Your task to perform on an android device: Open Google Maps Image 0: 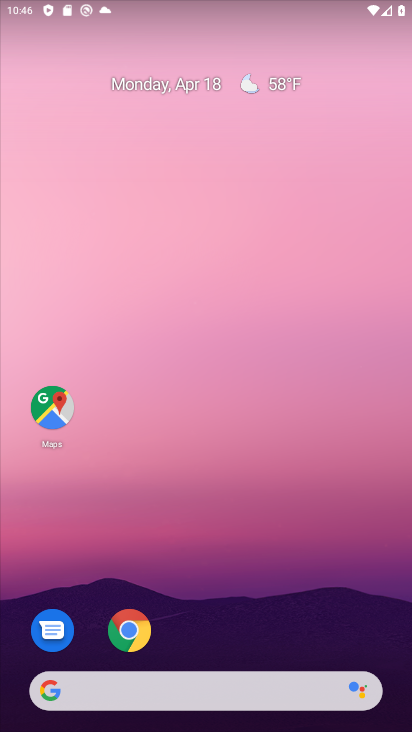
Step 0: click (51, 407)
Your task to perform on an android device: Open Google Maps Image 1: 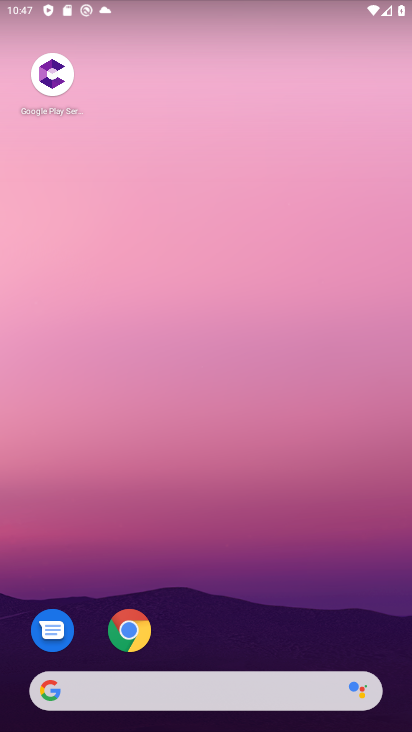
Step 1: drag from (233, 630) to (206, 182)
Your task to perform on an android device: Open Google Maps Image 2: 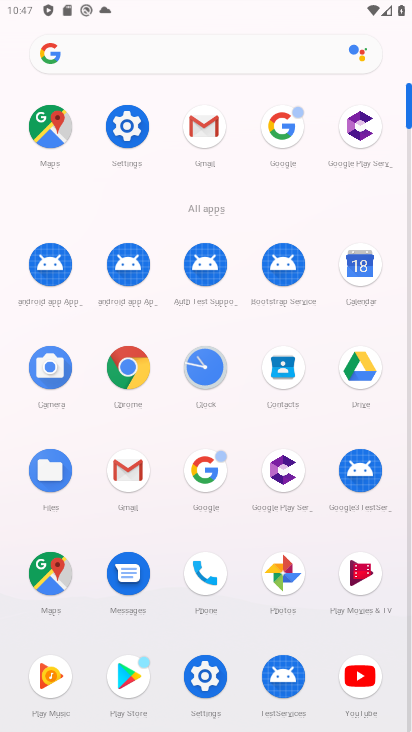
Step 2: press home button
Your task to perform on an android device: Open Google Maps Image 3: 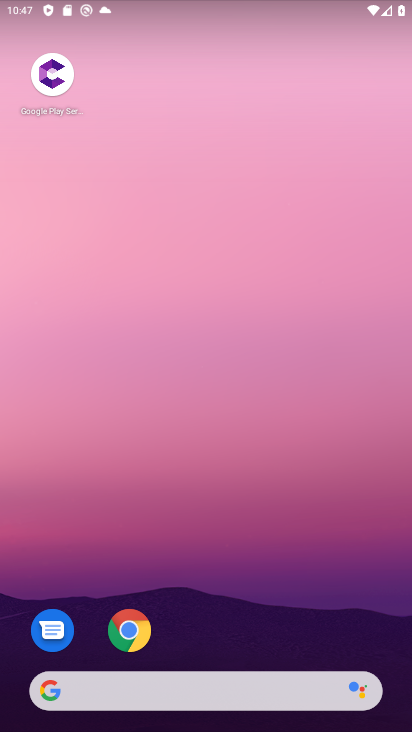
Step 3: drag from (285, 517) to (9, 504)
Your task to perform on an android device: Open Google Maps Image 4: 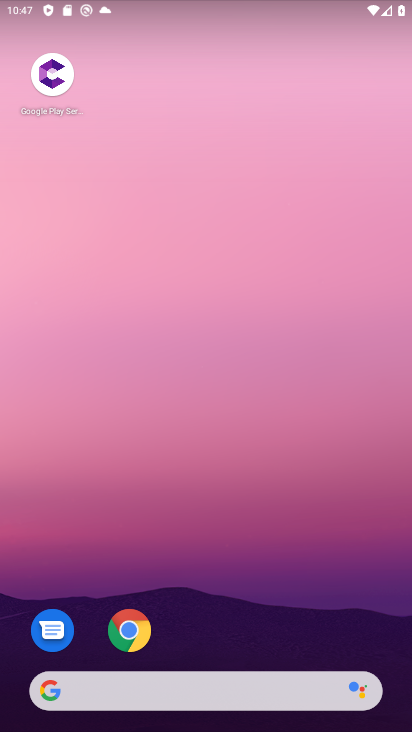
Step 4: drag from (181, 441) to (403, 506)
Your task to perform on an android device: Open Google Maps Image 5: 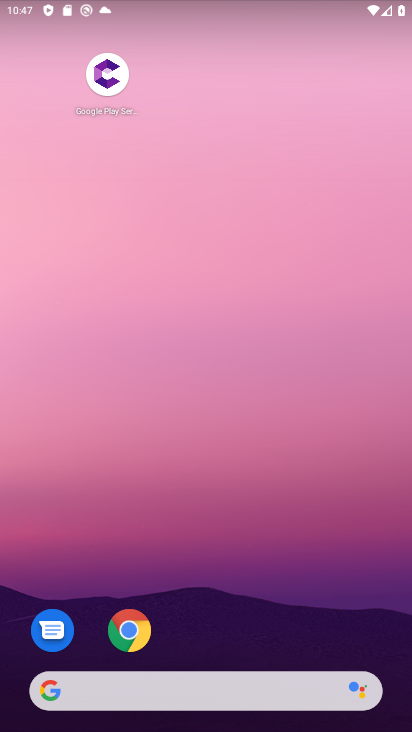
Step 5: drag from (189, 313) to (195, 179)
Your task to perform on an android device: Open Google Maps Image 6: 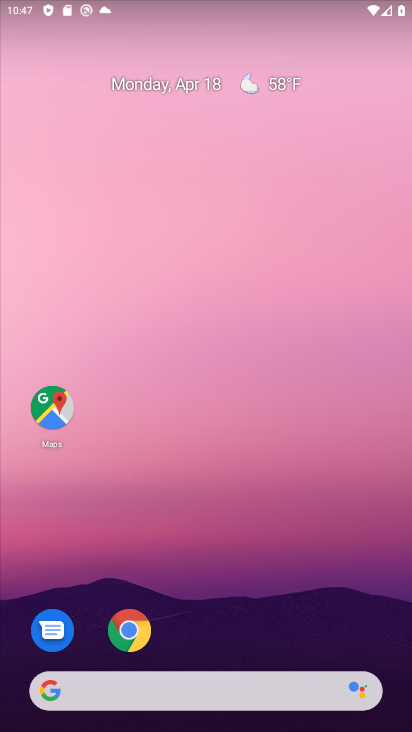
Step 6: click (43, 411)
Your task to perform on an android device: Open Google Maps Image 7: 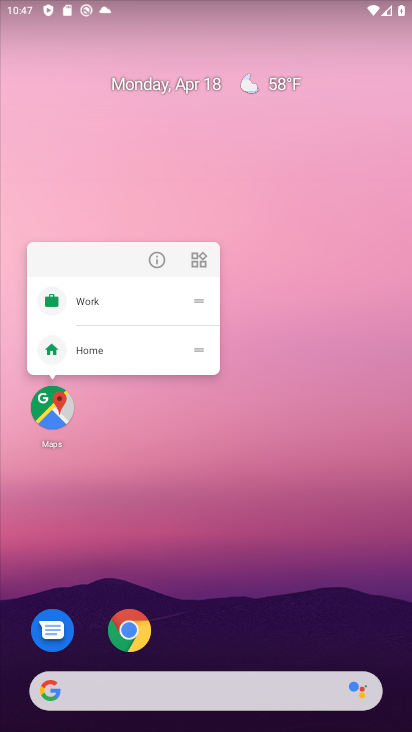
Step 7: click (47, 407)
Your task to perform on an android device: Open Google Maps Image 8: 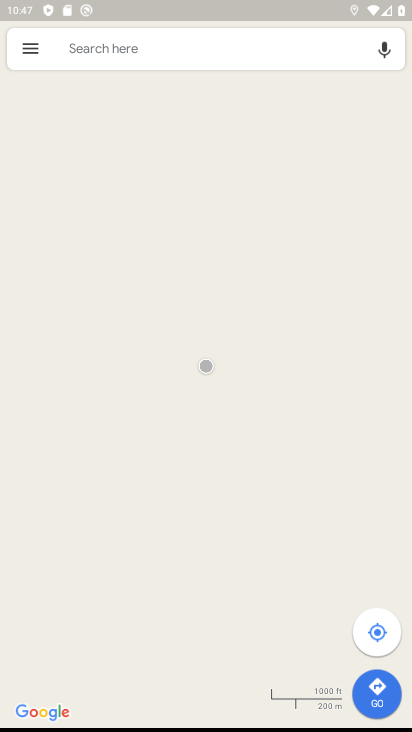
Step 8: task complete